Your task to perform on an android device: Open location settings Image 0: 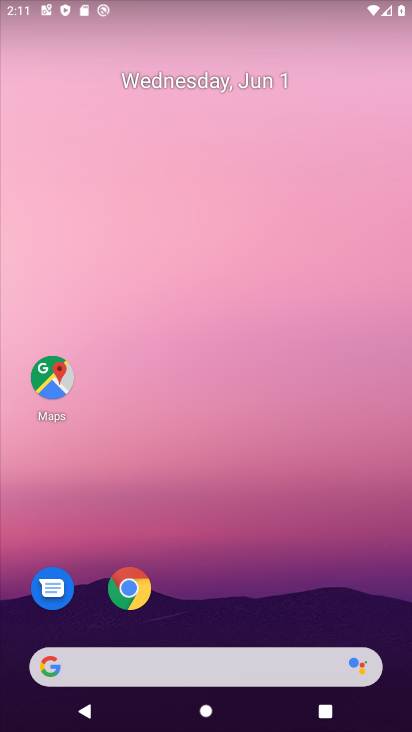
Step 0: click (269, 72)
Your task to perform on an android device: Open location settings Image 1: 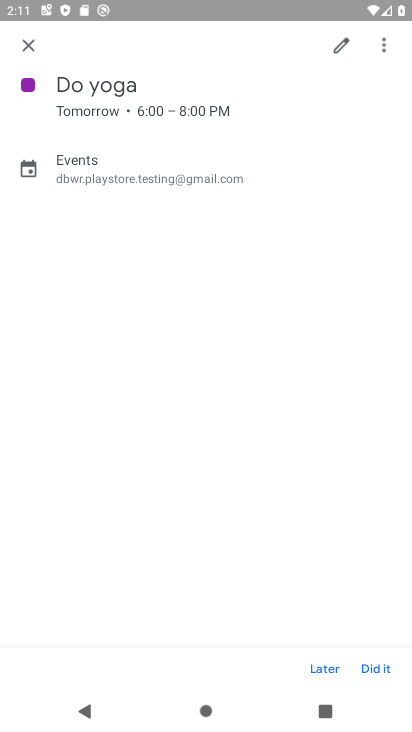
Step 1: press back button
Your task to perform on an android device: Open location settings Image 2: 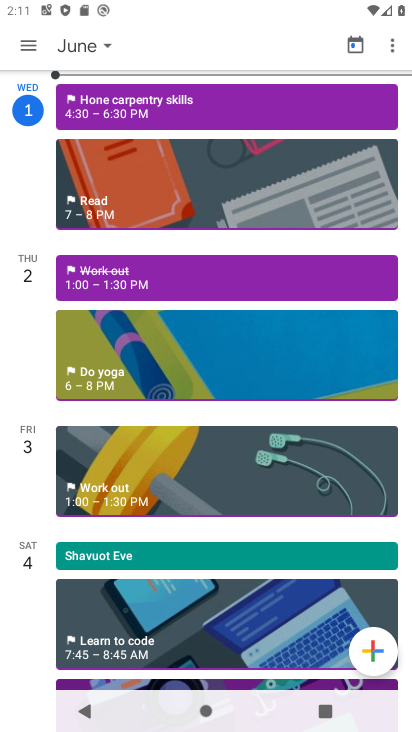
Step 2: press back button
Your task to perform on an android device: Open location settings Image 3: 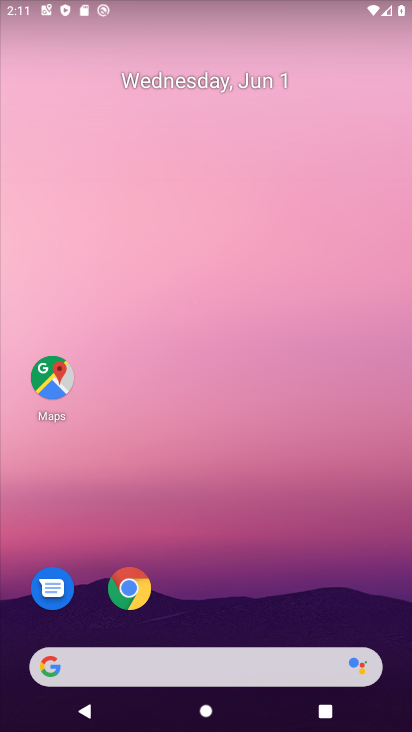
Step 3: drag from (223, 585) to (317, 81)
Your task to perform on an android device: Open location settings Image 4: 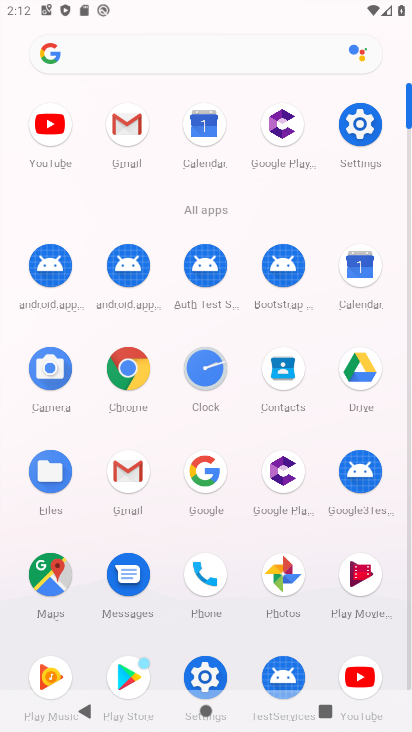
Step 4: click (354, 123)
Your task to perform on an android device: Open location settings Image 5: 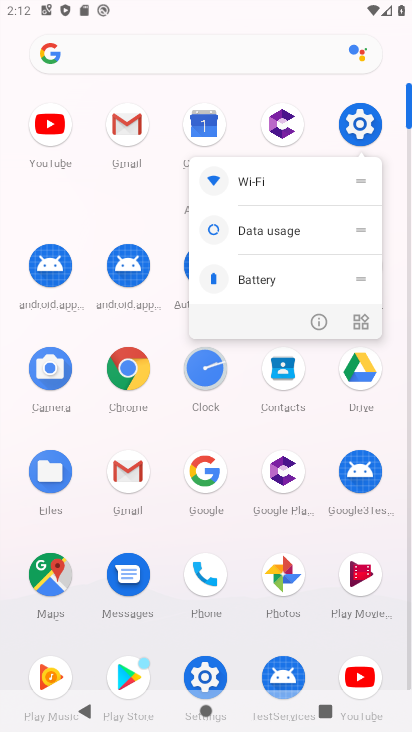
Step 5: click (349, 122)
Your task to perform on an android device: Open location settings Image 6: 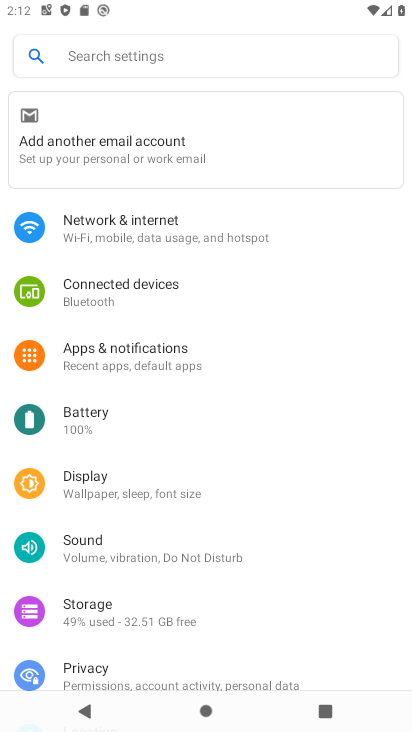
Step 6: drag from (106, 638) to (203, 293)
Your task to perform on an android device: Open location settings Image 7: 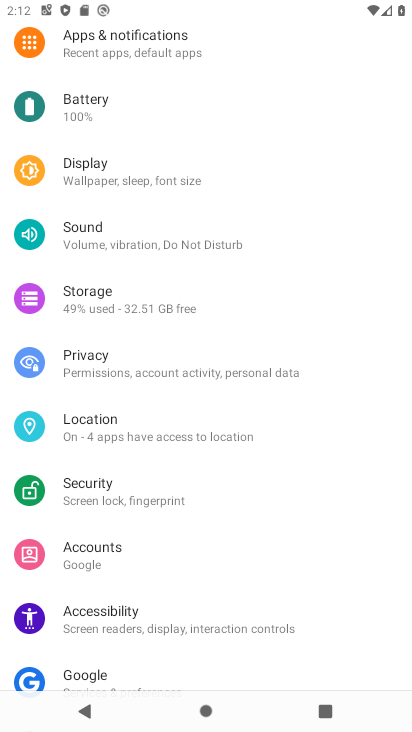
Step 7: click (113, 420)
Your task to perform on an android device: Open location settings Image 8: 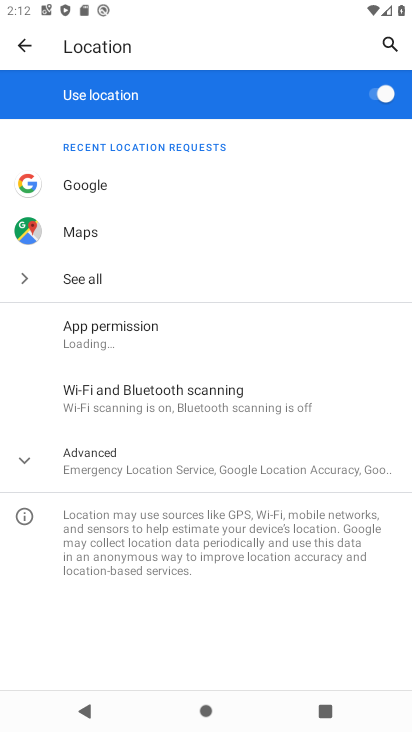
Step 8: task complete